Your task to perform on an android device: Go to Maps Image 0: 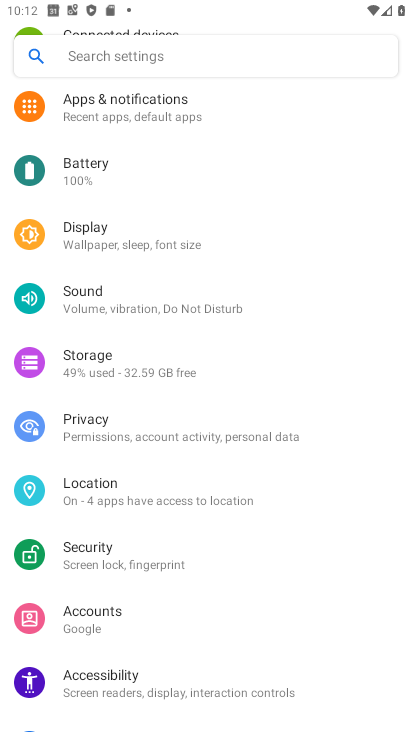
Step 0: press home button
Your task to perform on an android device: Go to Maps Image 1: 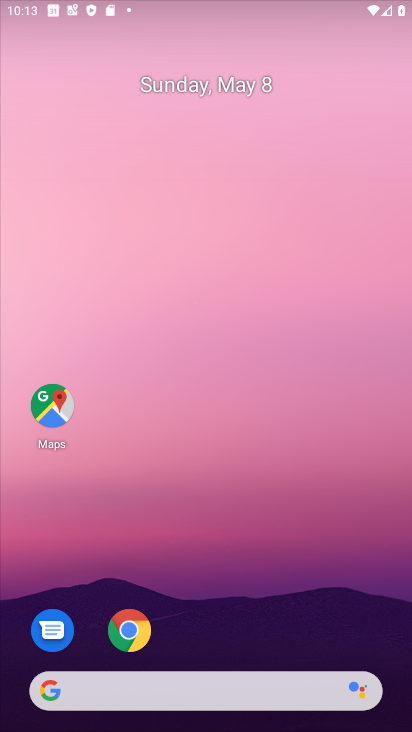
Step 1: drag from (213, 730) to (221, 303)
Your task to perform on an android device: Go to Maps Image 2: 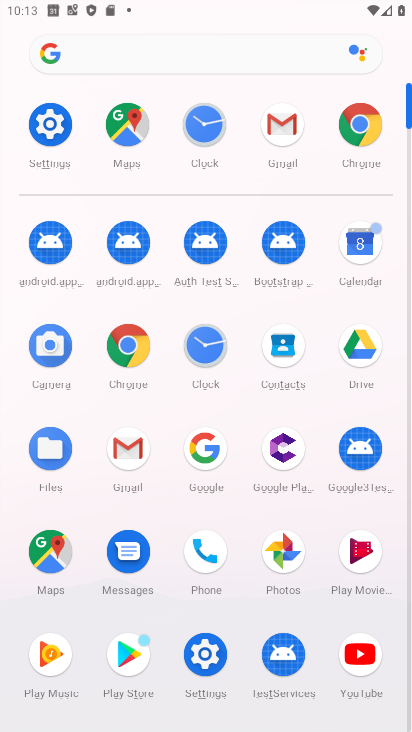
Step 2: click (43, 552)
Your task to perform on an android device: Go to Maps Image 3: 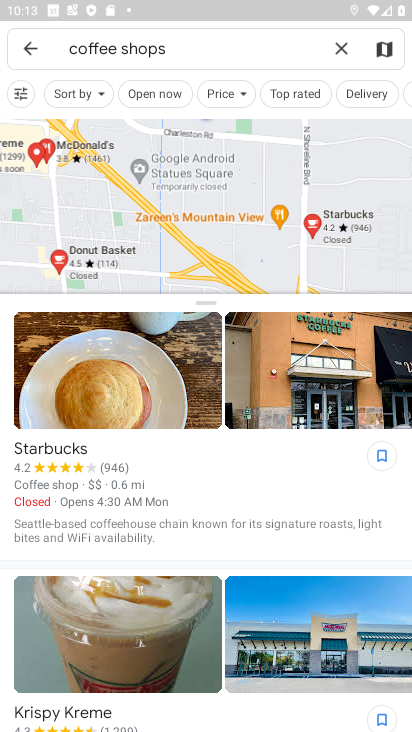
Step 3: task complete